Your task to perform on an android device: change the clock display to analog Image 0: 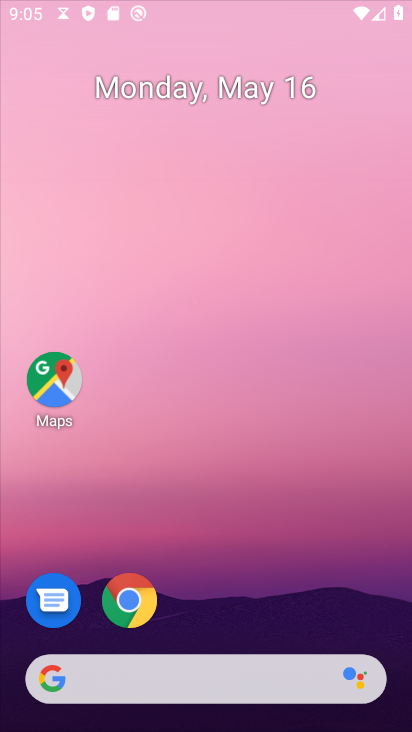
Step 0: drag from (216, 590) to (218, 95)
Your task to perform on an android device: change the clock display to analog Image 1: 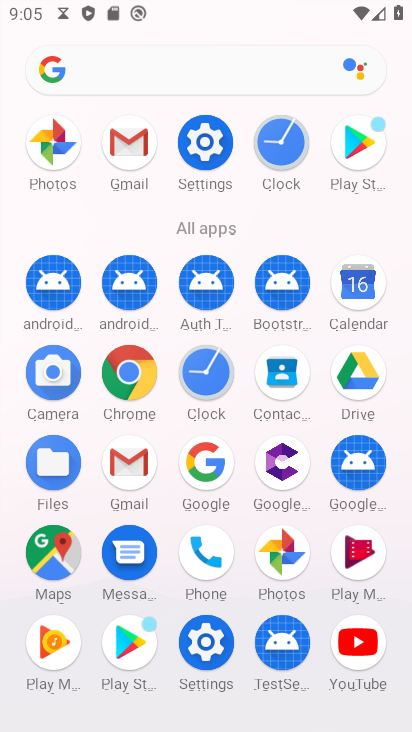
Step 1: click (283, 161)
Your task to perform on an android device: change the clock display to analog Image 2: 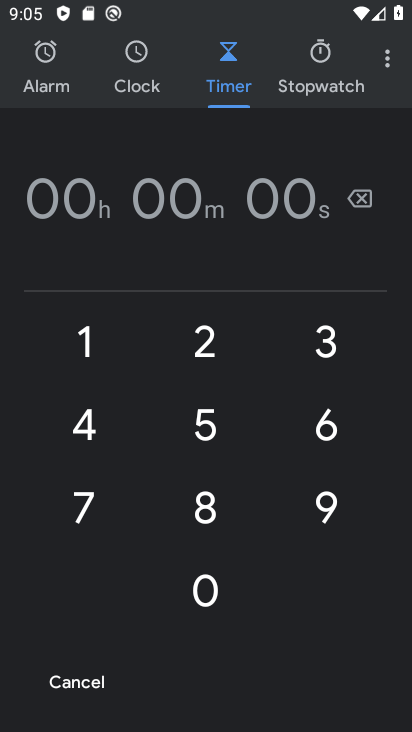
Step 2: click (390, 57)
Your task to perform on an android device: change the clock display to analog Image 3: 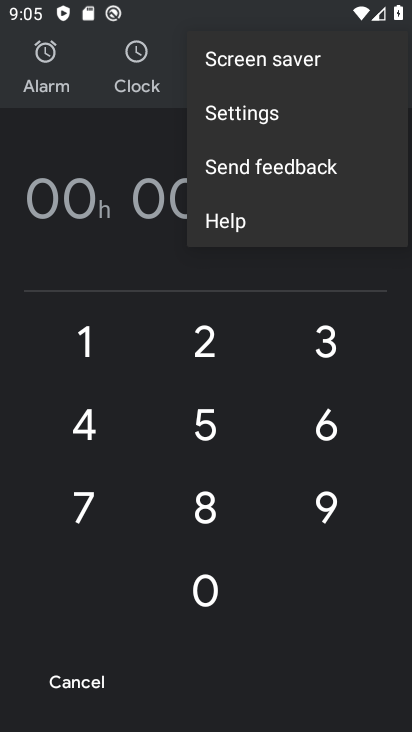
Step 3: click (250, 128)
Your task to perform on an android device: change the clock display to analog Image 4: 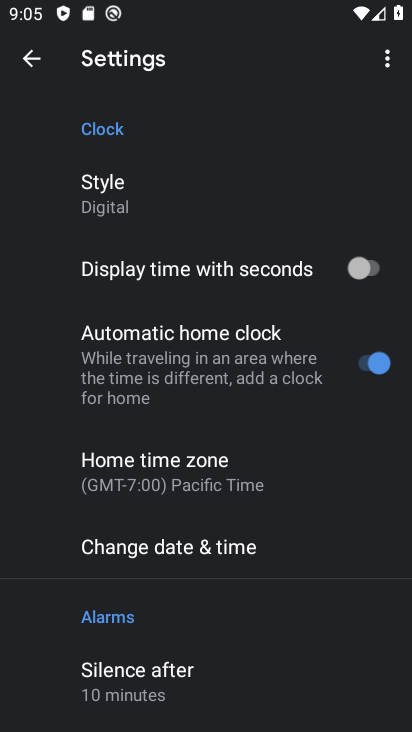
Step 4: click (133, 196)
Your task to perform on an android device: change the clock display to analog Image 5: 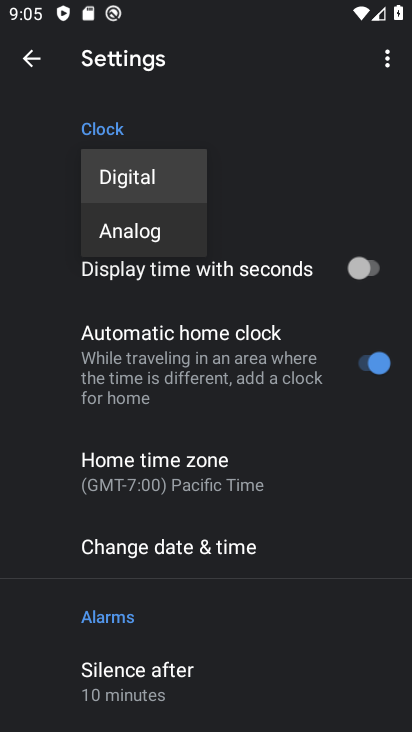
Step 5: click (144, 244)
Your task to perform on an android device: change the clock display to analog Image 6: 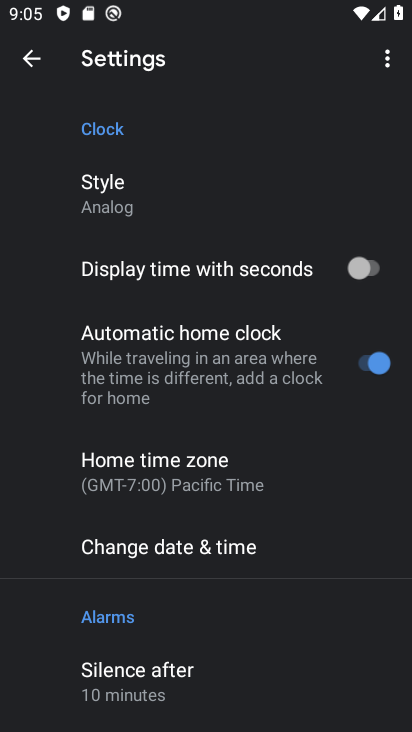
Step 6: task complete